Your task to perform on an android device: Open calendar and show me the fourth week of next month Image 0: 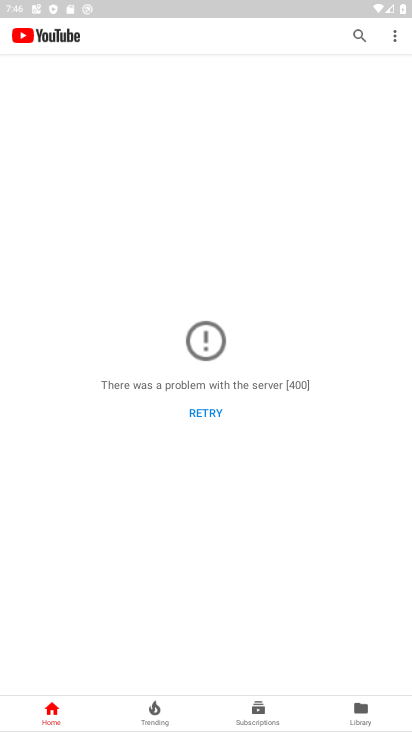
Step 0: press home button
Your task to perform on an android device: Open calendar and show me the fourth week of next month Image 1: 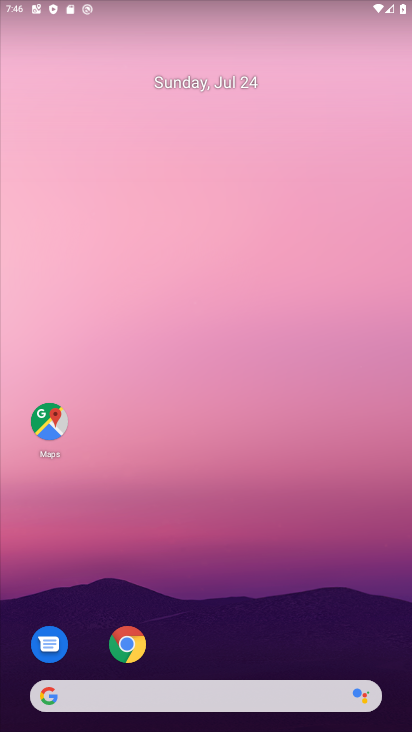
Step 1: drag from (251, 602) to (224, 11)
Your task to perform on an android device: Open calendar and show me the fourth week of next month Image 2: 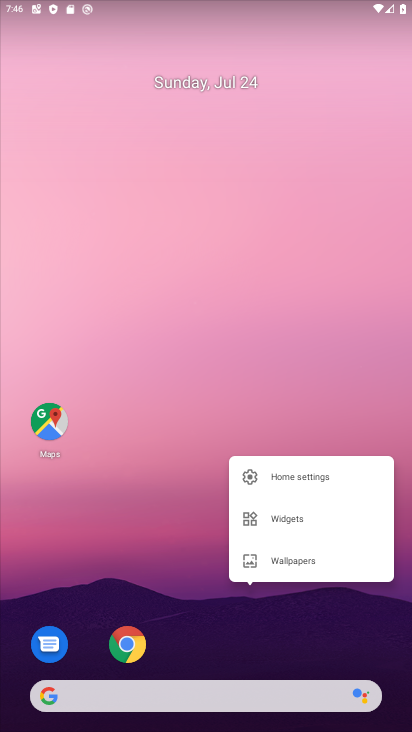
Step 2: click (238, 310)
Your task to perform on an android device: Open calendar and show me the fourth week of next month Image 3: 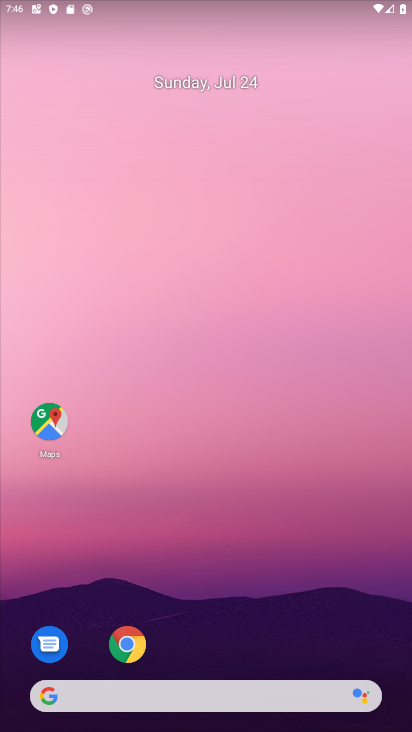
Step 3: drag from (314, 564) to (301, 133)
Your task to perform on an android device: Open calendar and show me the fourth week of next month Image 4: 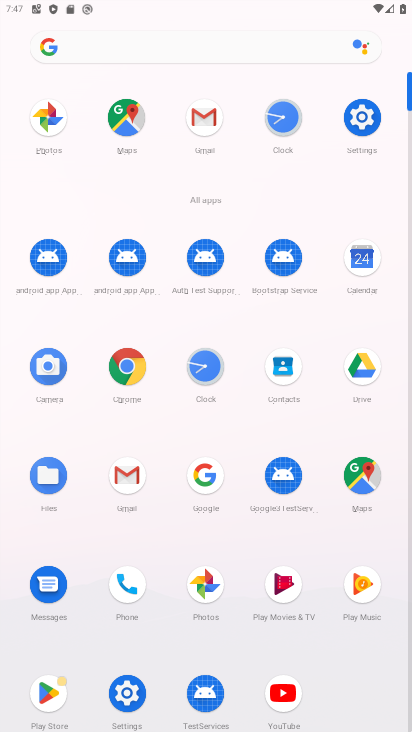
Step 4: click (367, 248)
Your task to perform on an android device: Open calendar and show me the fourth week of next month Image 5: 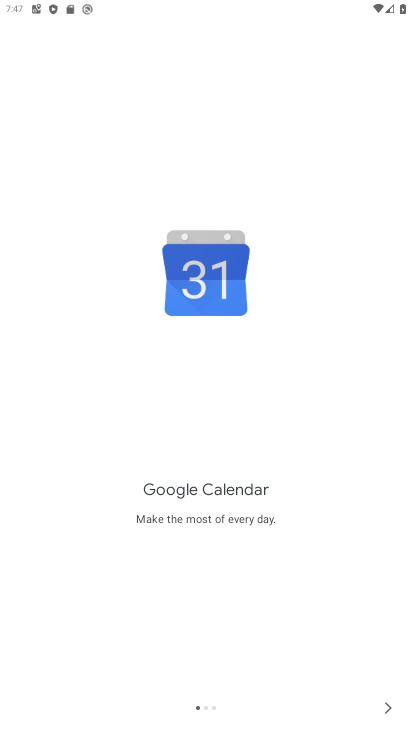
Step 5: click (390, 705)
Your task to perform on an android device: Open calendar and show me the fourth week of next month Image 6: 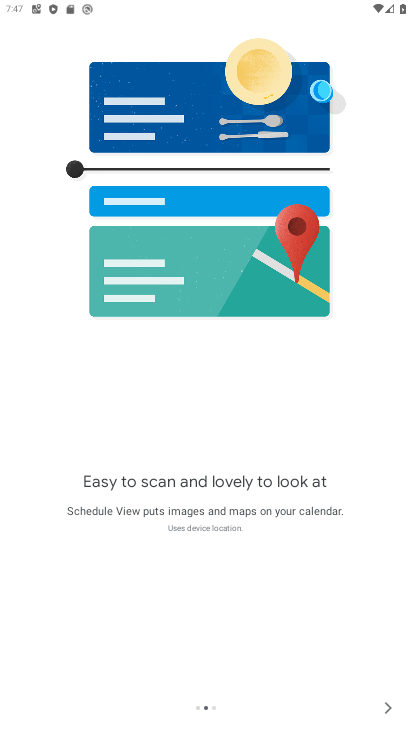
Step 6: click (390, 705)
Your task to perform on an android device: Open calendar and show me the fourth week of next month Image 7: 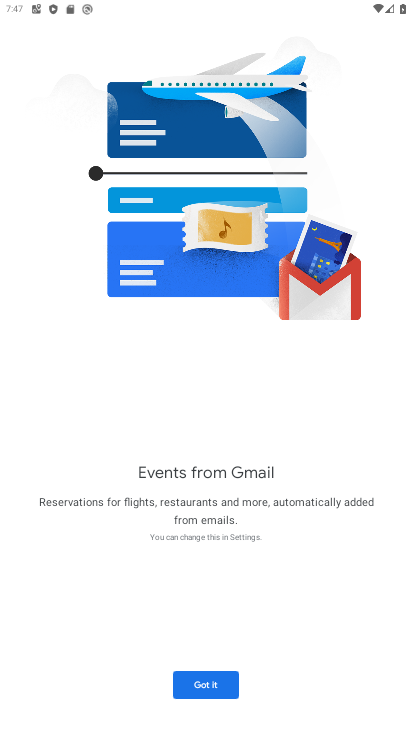
Step 7: click (210, 689)
Your task to perform on an android device: Open calendar and show me the fourth week of next month Image 8: 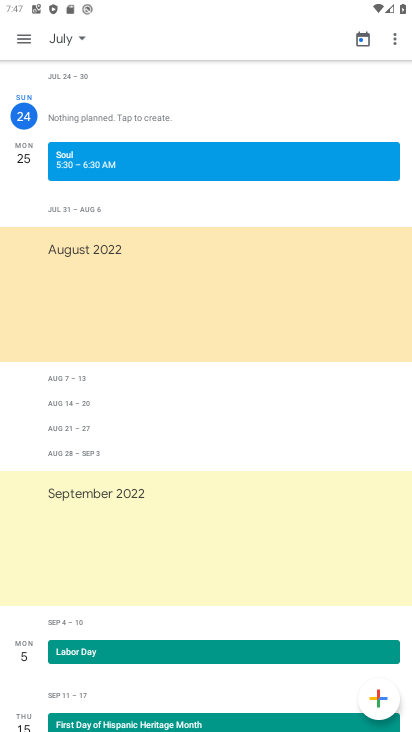
Step 8: click (27, 40)
Your task to perform on an android device: Open calendar and show me the fourth week of next month Image 9: 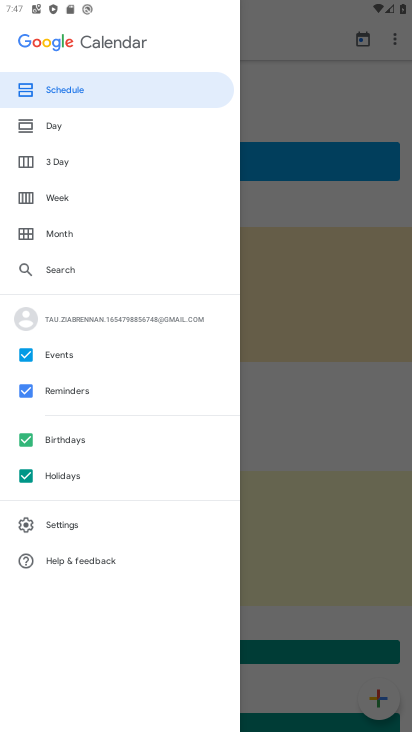
Step 9: click (87, 191)
Your task to perform on an android device: Open calendar and show me the fourth week of next month Image 10: 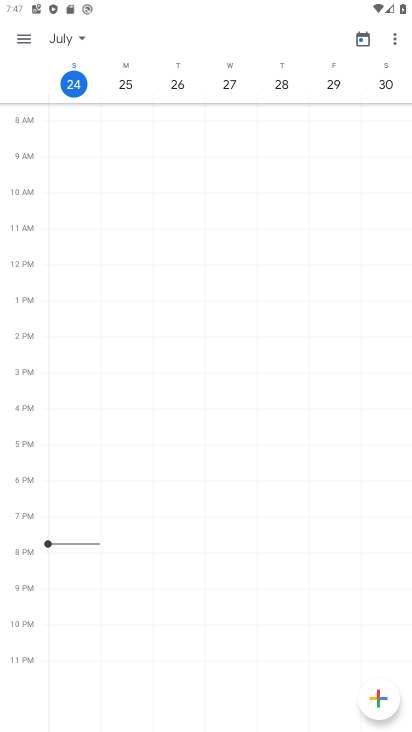
Step 10: click (75, 39)
Your task to perform on an android device: Open calendar and show me the fourth week of next month Image 11: 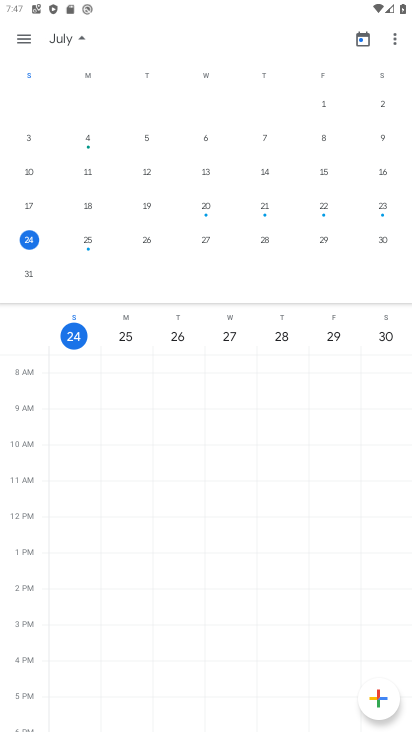
Step 11: drag from (281, 217) to (62, 201)
Your task to perform on an android device: Open calendar and show me the fourth week of next month Image 12: 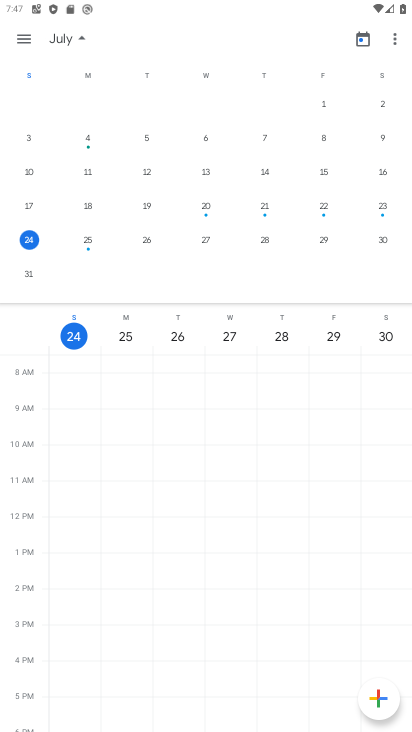
Step 12: drag from (345, 214) to (4, 202)
Your task to perform on an android device: Open calendar and show me the fourth week of next month Image 13: 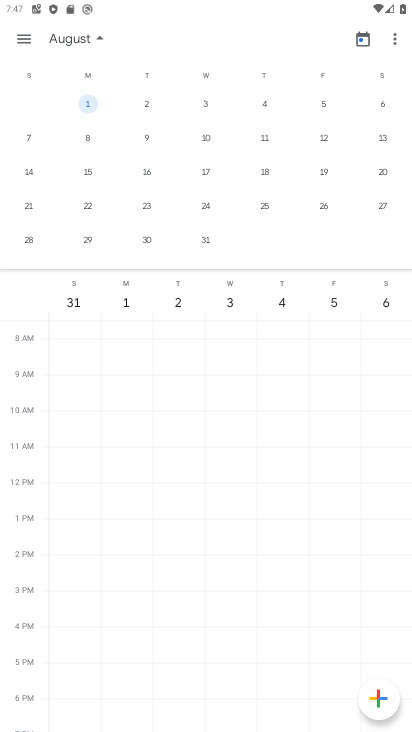
Step 13: click (147, 204)
Your task to perform on an android device: Open calendar and show me the fourth week of next month Image 14: 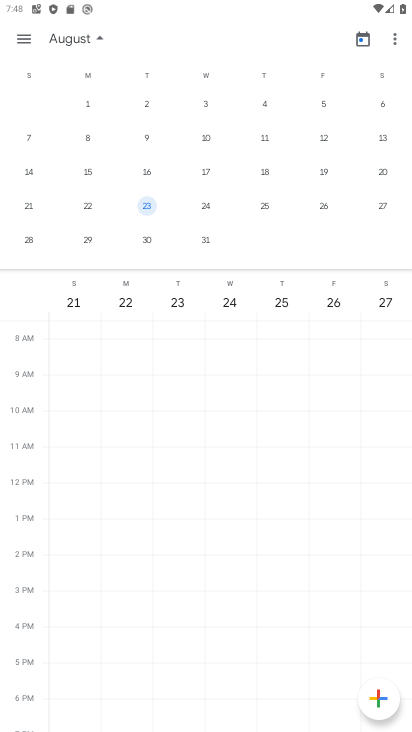
Step 14: task complete